Your task to perform on an android device: Open settings on Google Maps Image 0: 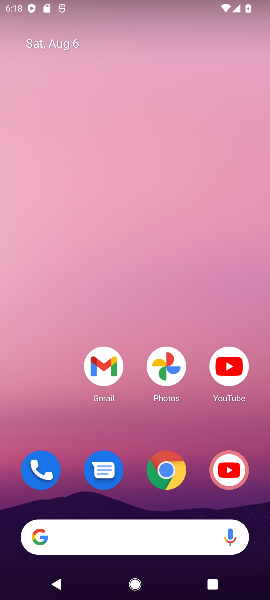
Step 0: drag from (132, 490) to (167, 85)
Your task to perform on an android device: Open settings on Google Maps Image 1: 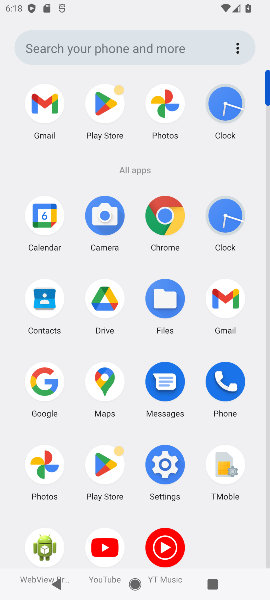
Step 1: click (112, 380)
Your task to perform on an android device: Open settings on Google Maps Image 2: 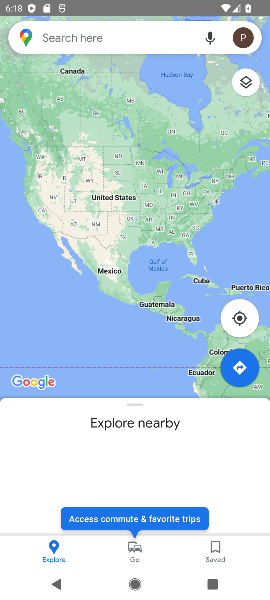
Step 2: click (236, 39)
Your task to perform on an android device: Open settings on Google Maps Image 3: 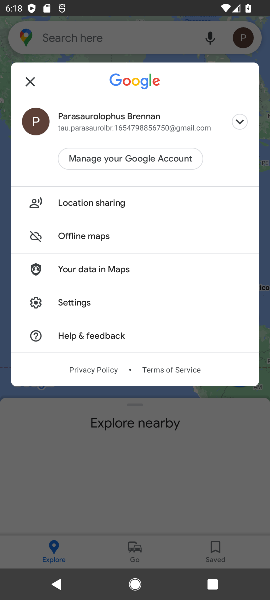
Step 3: click (79, 303)
Your task to perform on an android device: Open settings on Google Maps Image 4: 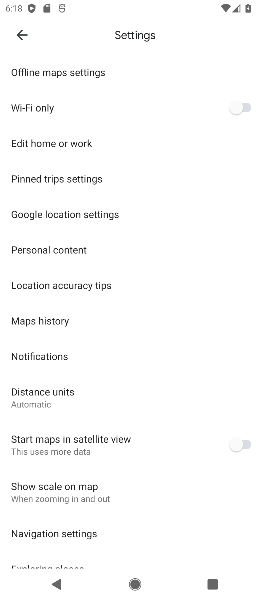
Step 4: task complete